Your task to perform on an android device: change timer sound Image 0: 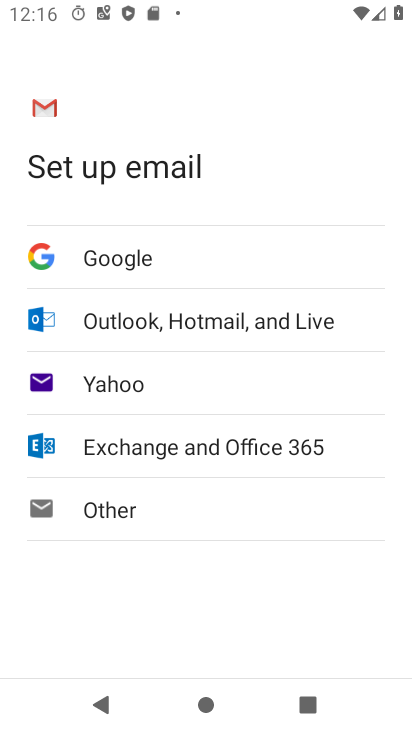
Step 0: press home button
Your task to perform on an android device: change timer sound Image 1: 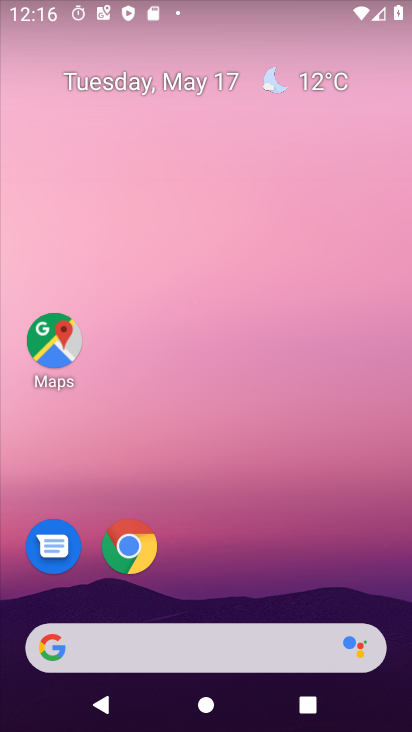
Step 1: drag from (215, 643) to (356, 116)
Your task to perform on an android device: change timer sound Image 2: 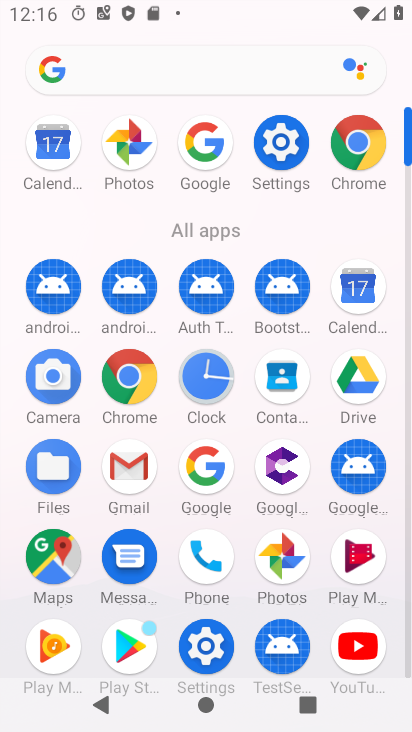
Step 2: click (207, 381)
Your task to perform on an android device: change timer sound Image 3: 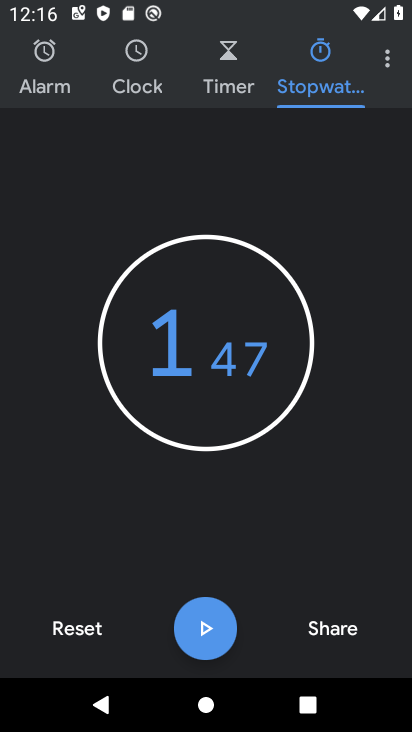
Step 3: click (388, 71)
Your task to perform on an android device: change timer sound Image 4: 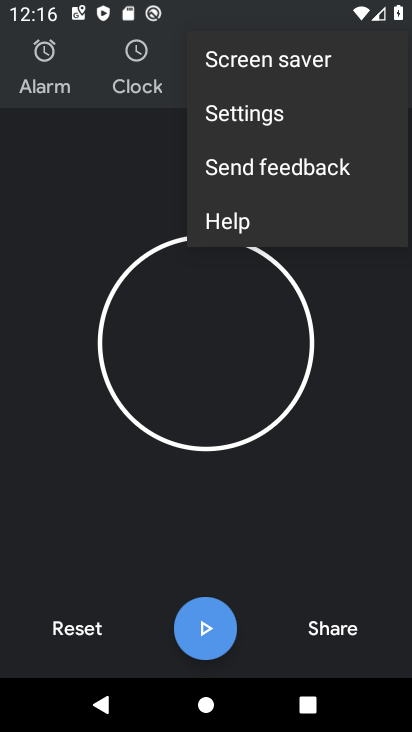
Step 4: click (267, 110)
Your task to perform on an android device: change timer sound Image 5: 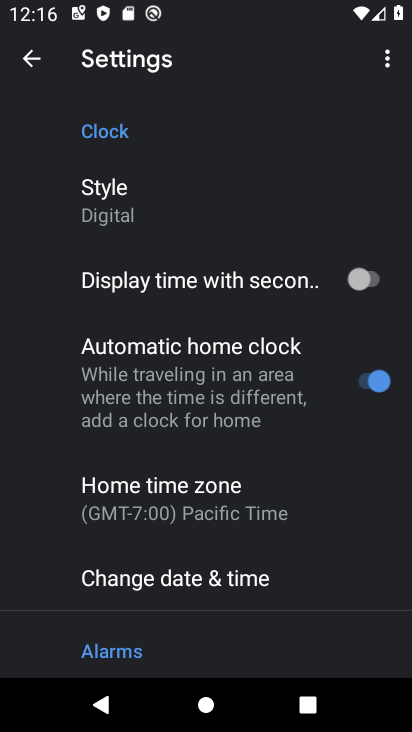
Step 5: drag from (264, 551) to (386, 84)
Your task to perform on an android device: change timer sound Image 6: 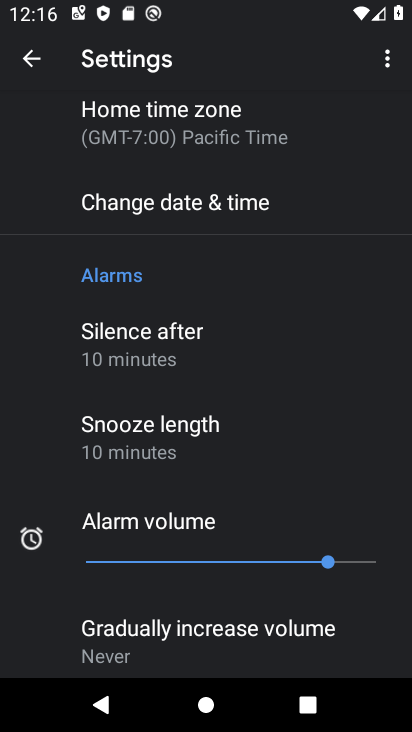
Step 6: drag from (245, 472) to (285, 106)
Your task to perform on an android device: change timer sound Image 7: 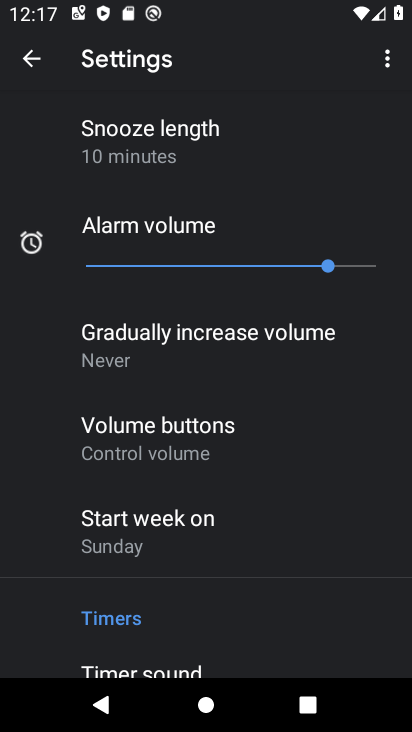
Step 7: drag from (229, 539) to (334, 115)
Your task to perform on an android device: change timer sound Image 8: 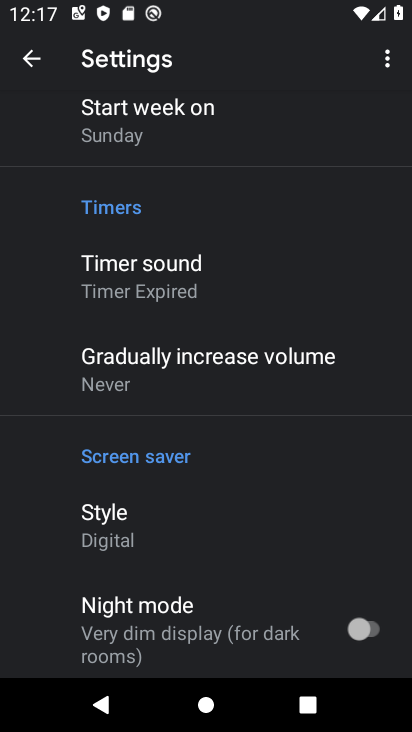
Step 8: click (185, 268)
Your task to perform on an android device: change timer sound Image 9: 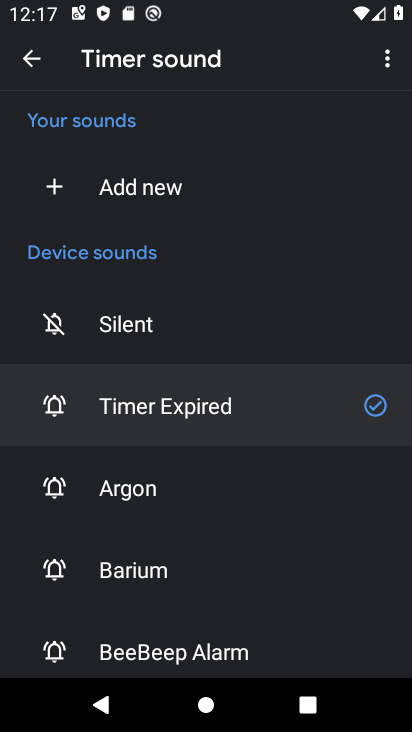
Step 9: click (147, 485)
Your task to perform on an android device: change timer sound Image 10: 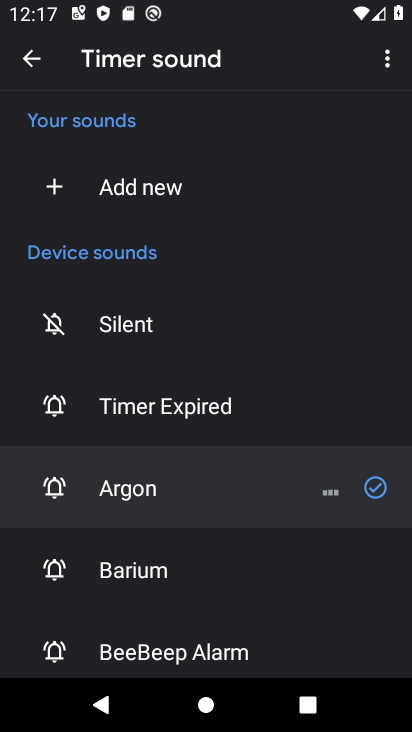
Step 10: task complete